Your task to perform on an android device: find photos in the google photos app Image 0: 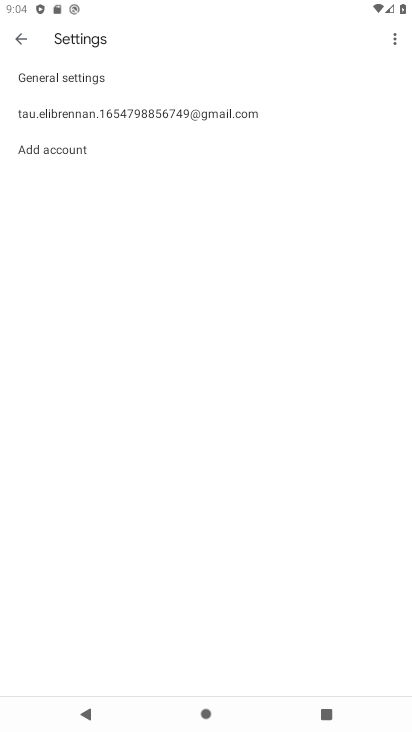
Step 0: press home button
Your task to perform on an android device: find photos in the google photos app Image 1: 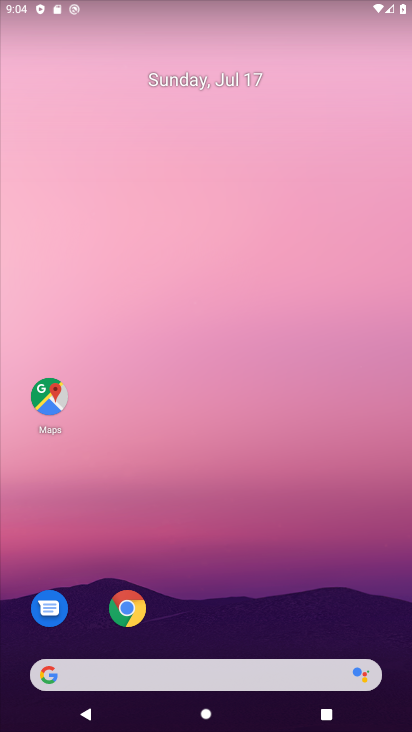
Step 1: drag from (254, 508) to (146, 0)
Your task to perform on an android device: find photos in the google photos app Image 2: 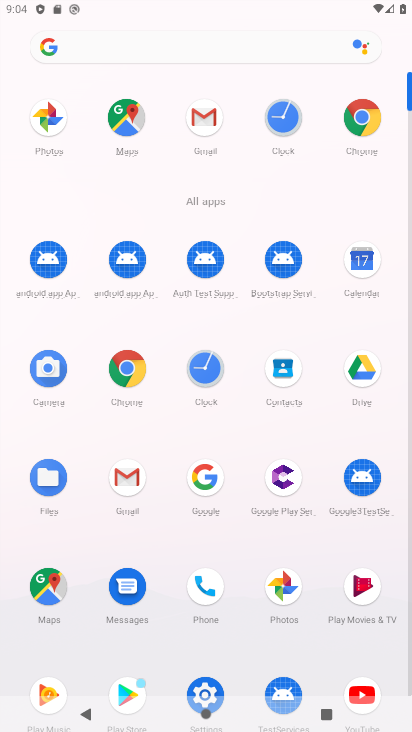
Step 2: click (54, 124)
Your task to perform on an android device: find photos in the google photos app Image 3: 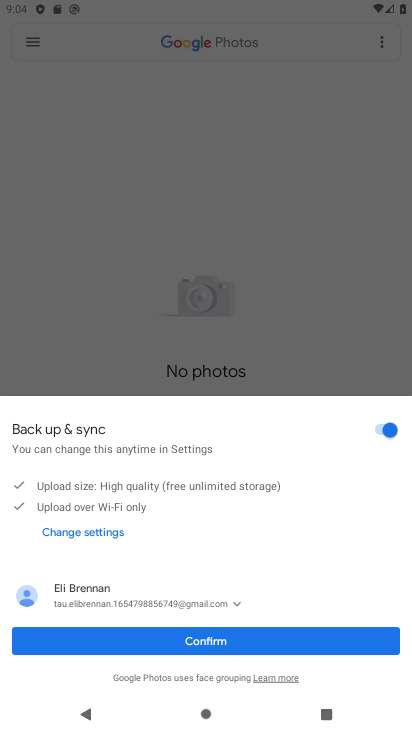
Step 3: click (228, 641)
Your task to perform on an android device: find photos in the google photos app Image 4: 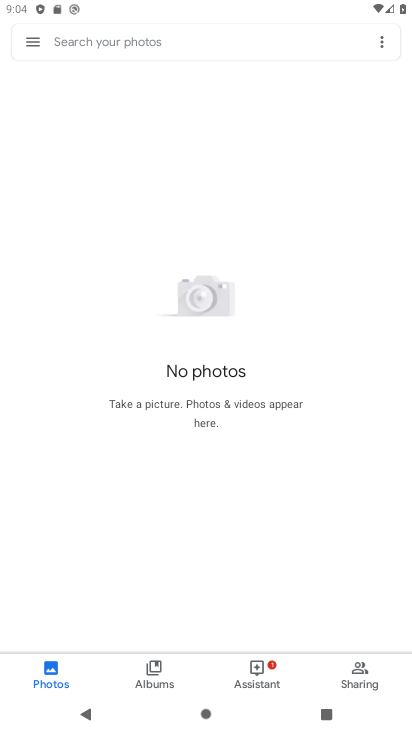
Step 4: task complete